Your task to perform on an android device: change text size in settings app Image 0: 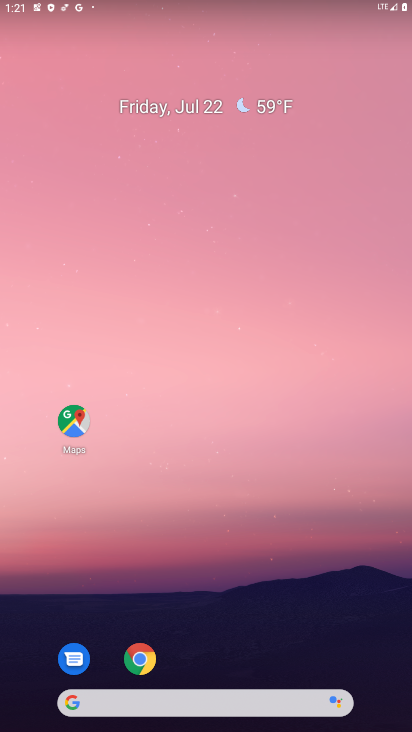
Step 0: drag from (222, 525) to (151, 108)
Your task to perform on an android device: change text size in settings app Image 1: 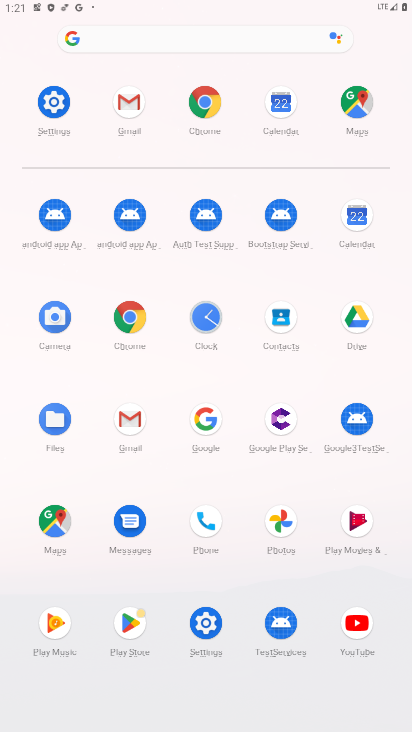
Step 1: click (59, 102)
Your task to perform on an android device: change text size in settings app Image 2: 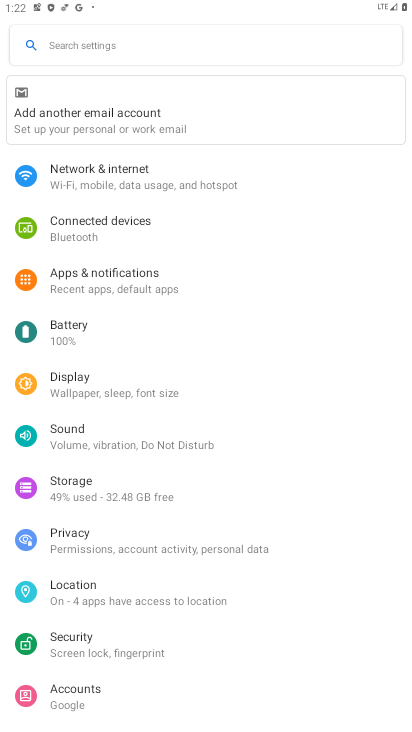
Step 2: click (100, 389)
Your task to perform on an android device: change text size in settings app Image 3: 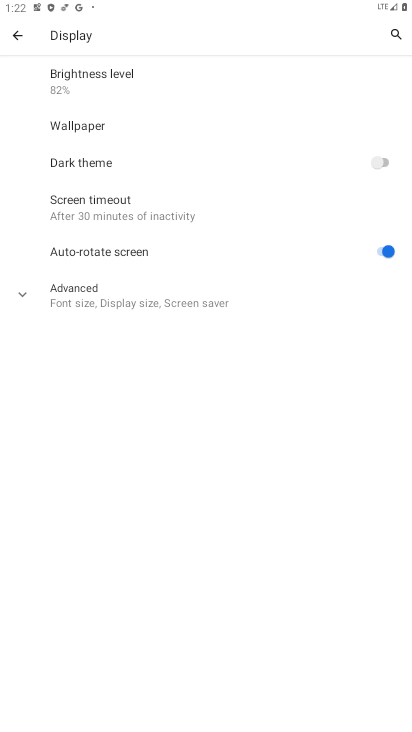
Step 3: click (73, 305)
Your task to perform on an android device: change text size in settings app Image 4: 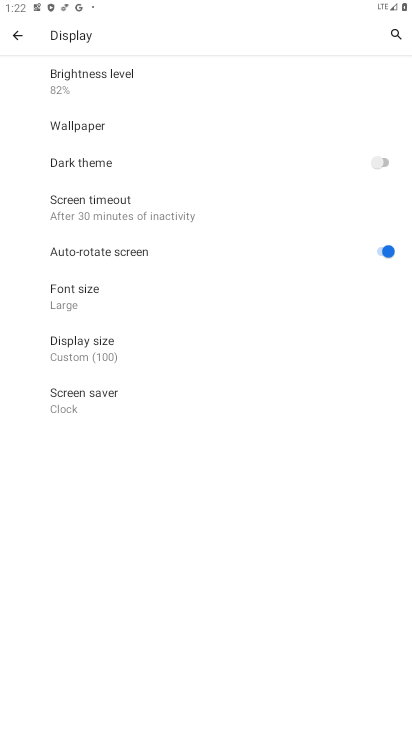
Step 4: click (93, 273)
Your task to perform on an android device: change text size in settings app Image 5: 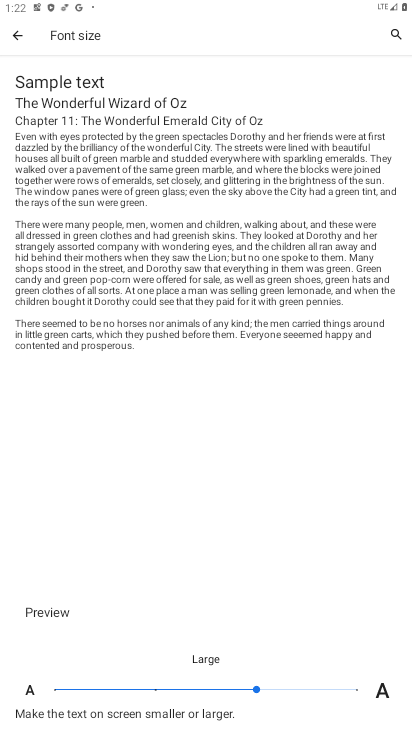
Step 5: click (298, 688)
Your task to perform on an android device: change text size in settings app Image 6: 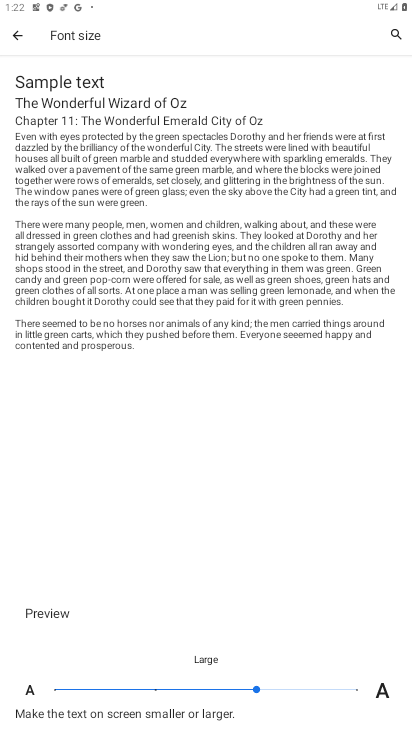
Step 6: task complete